Your task to perform on an android device: turn on translation in the chrome app Image 0: 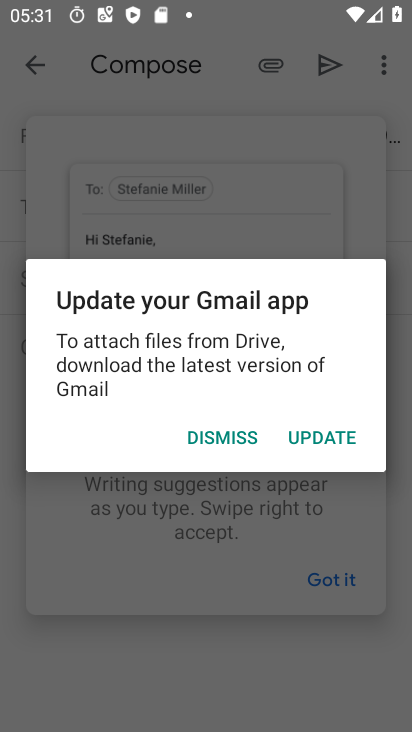
Step 0: press back button
Your task to perform on an android device: turn on translation in the chrome app Image 1: 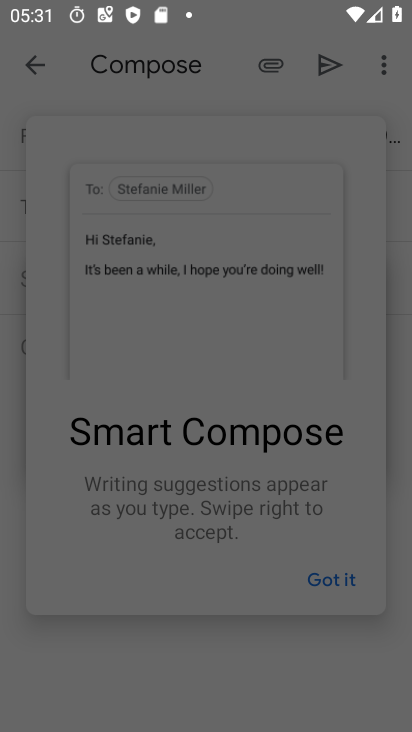
Step 1: press home button
Your task to perform on an android device: turn on translation in the chrome app Image 2: 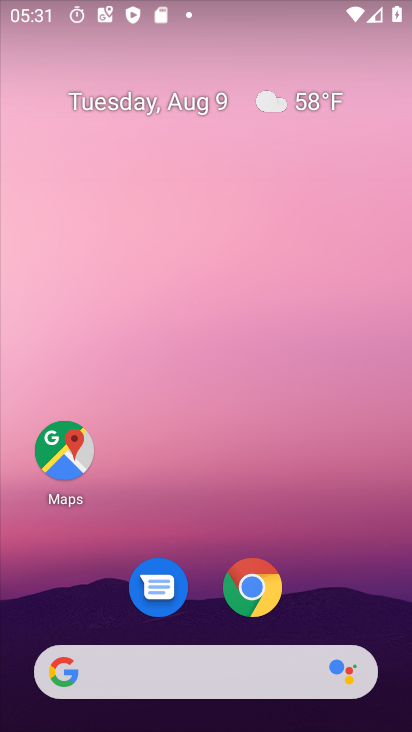
Step 2: click (254, 599)
Your task to perform on an android device: turn on translation in the chrome app Image 3: 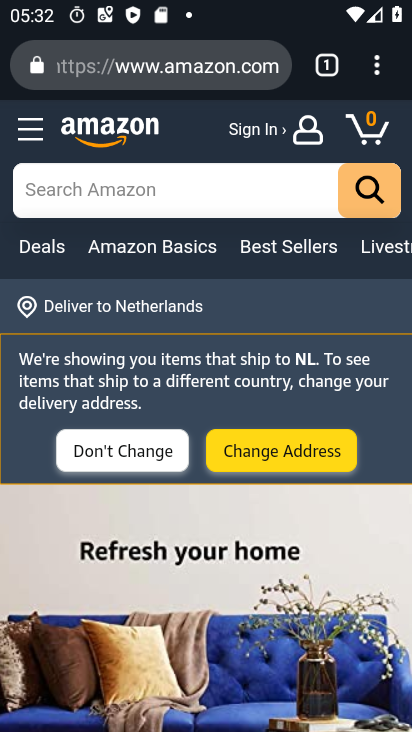
Step 3: drag from (381, 65) to (209, 639)
Your task to perform on an android device: turn on translation in the chrome app Image 4: 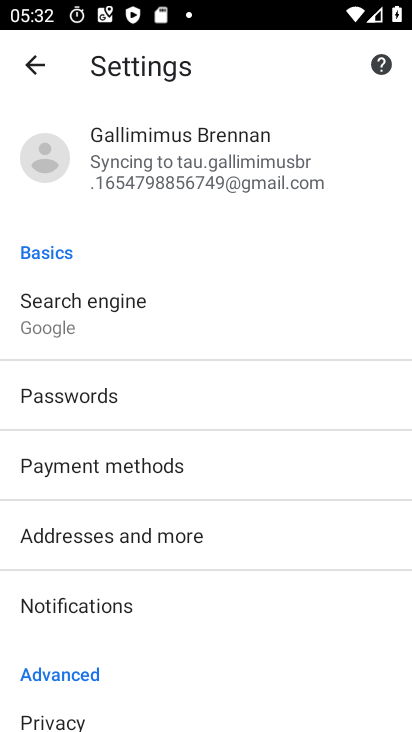
Step 4: drag from (149, 630) to (140, 173)
Your task to perform on an android device: turn on translation in the chrome app Image 5: 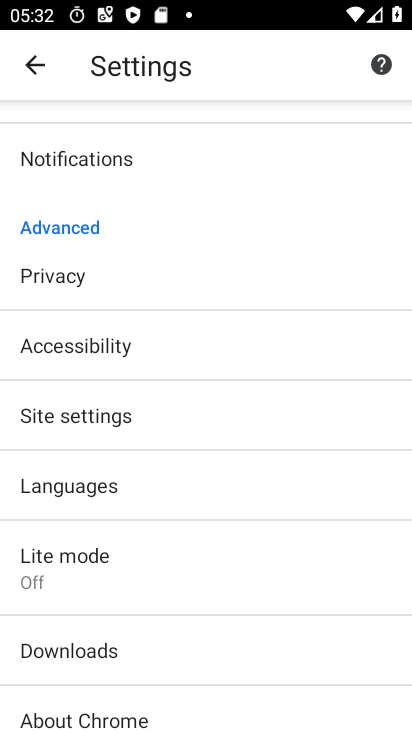
Step 5: click (152, 494)
Your task to perform on an android device: turn on translation in the chrome app Image 6: 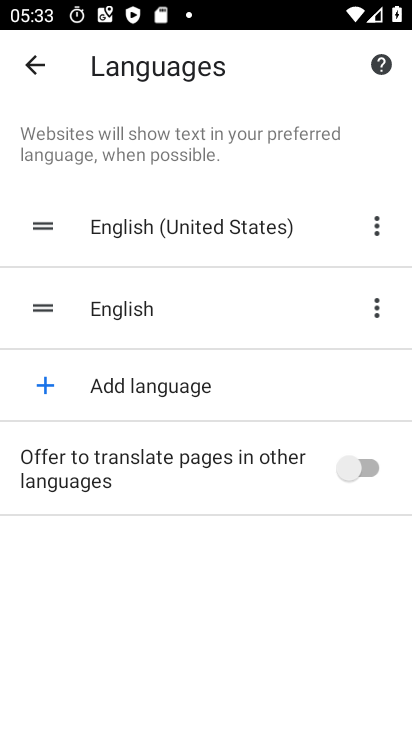
Step 6: click (360, 463)
Your task to perform on an android device: turn on translation in the chrome app Image 7: 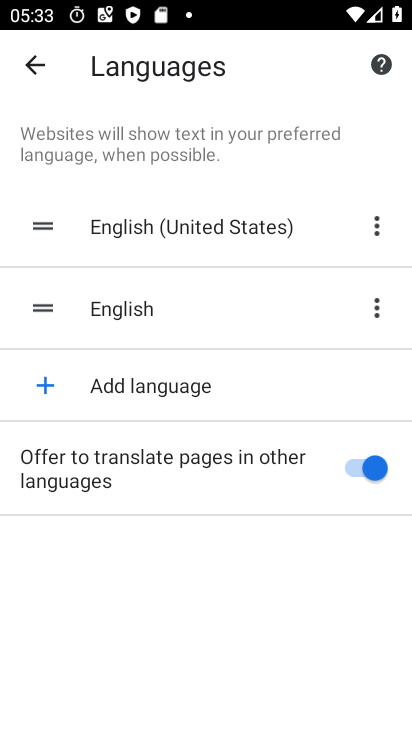
Step 7: task complete